Your task to perform on an android device: Go to notification settings Image 0: 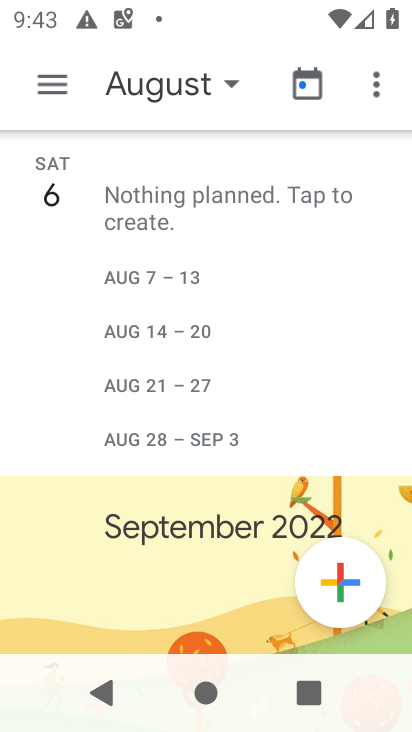
Step 0: press home button
Your task to perform on an android device: Go to notification settings Image 1: 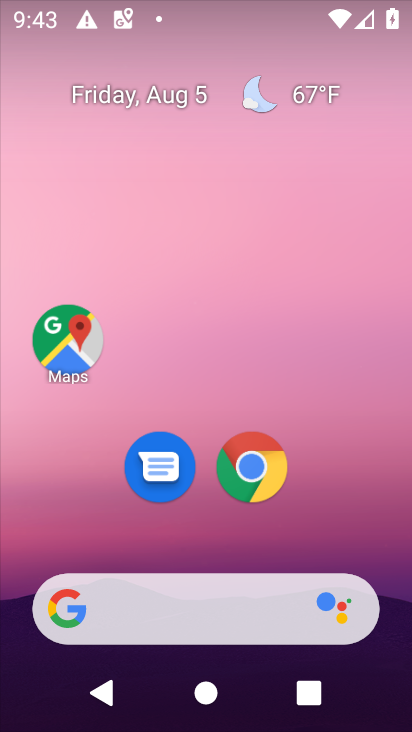
Step 1: drag from (96, 596) to (177, 185)
Your task to perform on an android device: Go to notification settings Image 2: 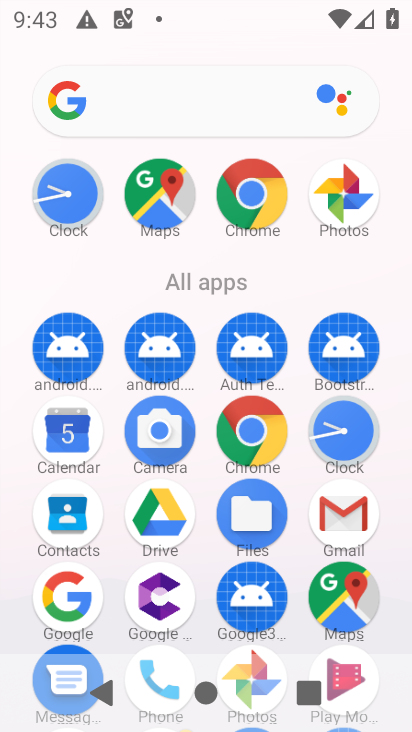
Step 2: drag from (206, 615) to (206, 291)
Your task to perform on an android device: Go to notification settings Image 3: 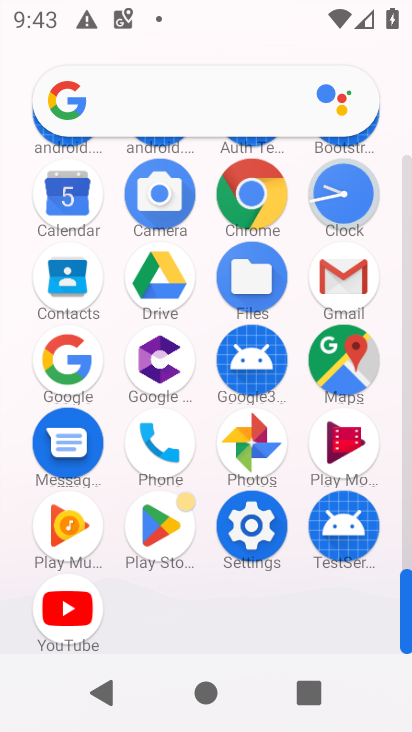
Step 3: click (248, 524)
Your task to perform on an android device: Go to notification settings Image 4: 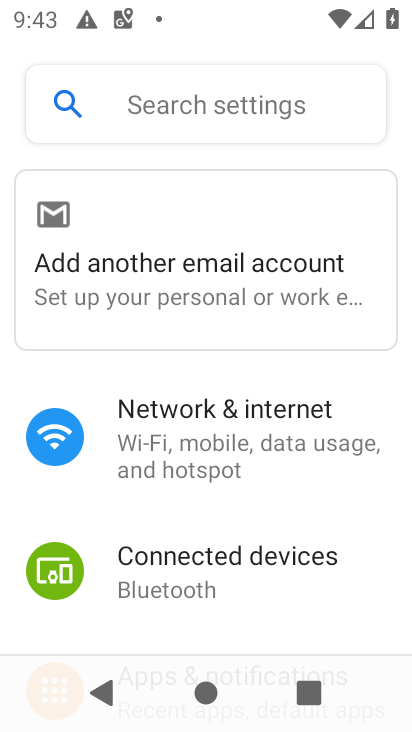
Step 4: drag from (163, 609) to (169, 313)
Your task to perform on an android device: Go to notification settings Image 5: 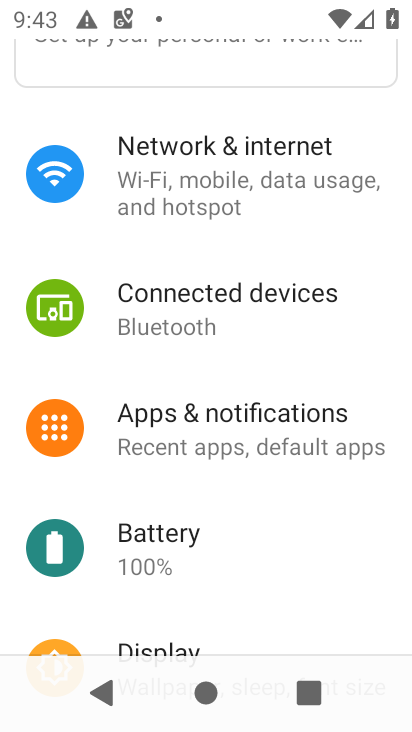
Step 5: click (206, 424)
Your task to perform on an android device: Go to notification settings Image 6: 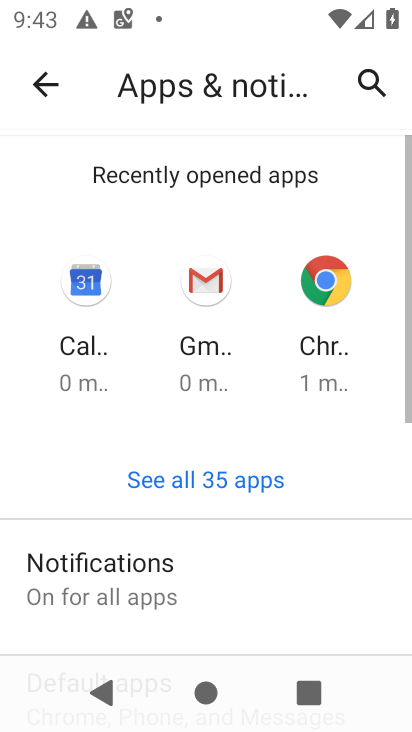
Step 6: drag from (216, 596) to (224, 207)
Your task to perform on an android device: Go to notification settings Image 7: 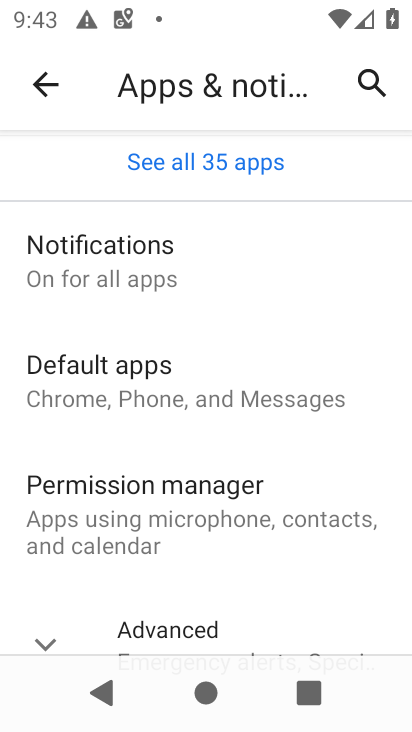
Step 7: drag from (246, 577) to (269, 283)
Your task to perform on an android device: Go to notification settings Image 8: 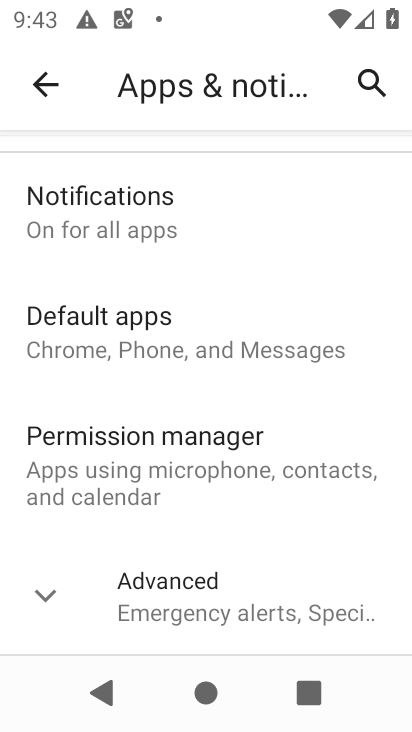
Step 8: click (183, 606)
Your task to perform on an android device: Go to notification settings Image 9: 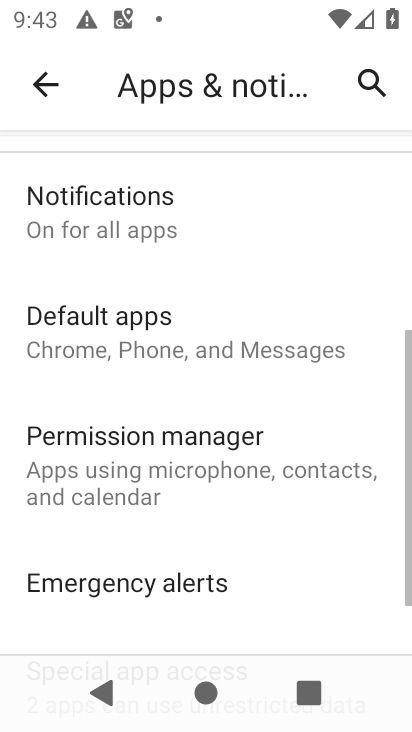
Step 9: task complete